Your task to perform on an android device: open app "Google Play Music" Image 0: 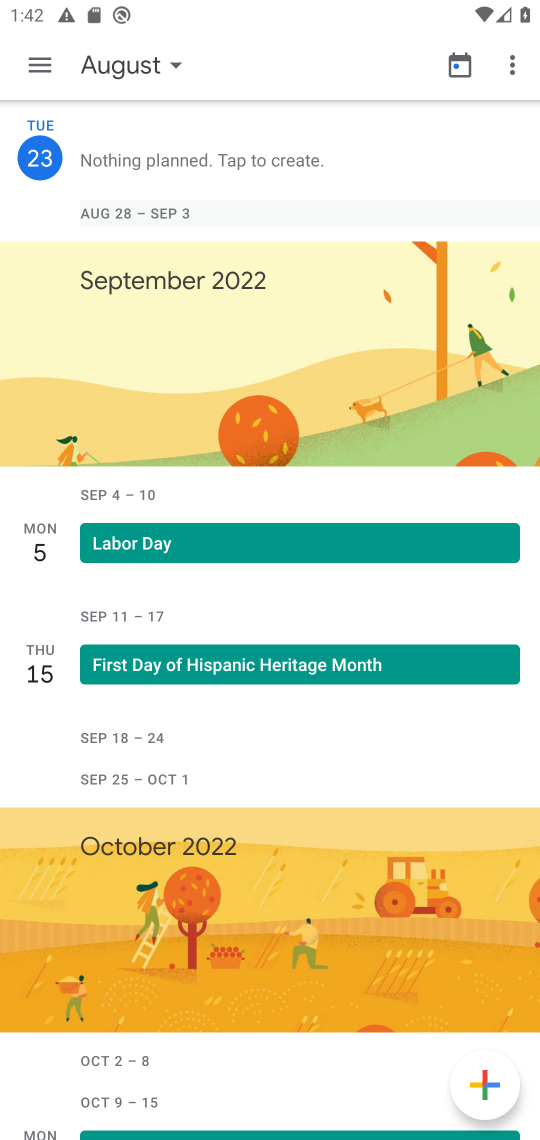
Step 0: press home button
Your task to perform on an android device: open app "Google Play Music" Image 1: 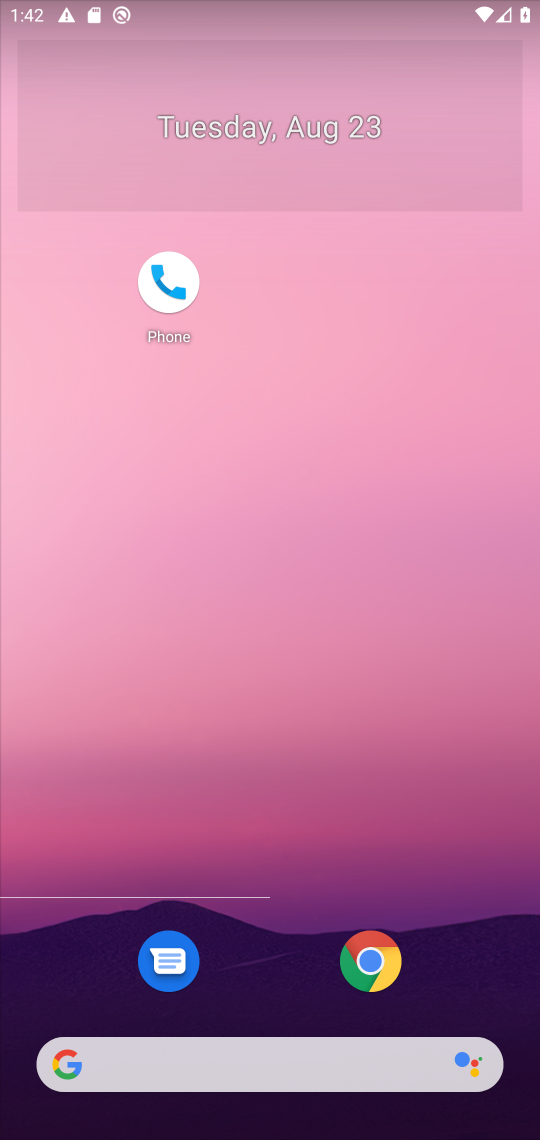
Step 1: drag from (267, 1012) to (262, 146)
Your task to perform on an android device: open app "Google Play Music" Image 2: 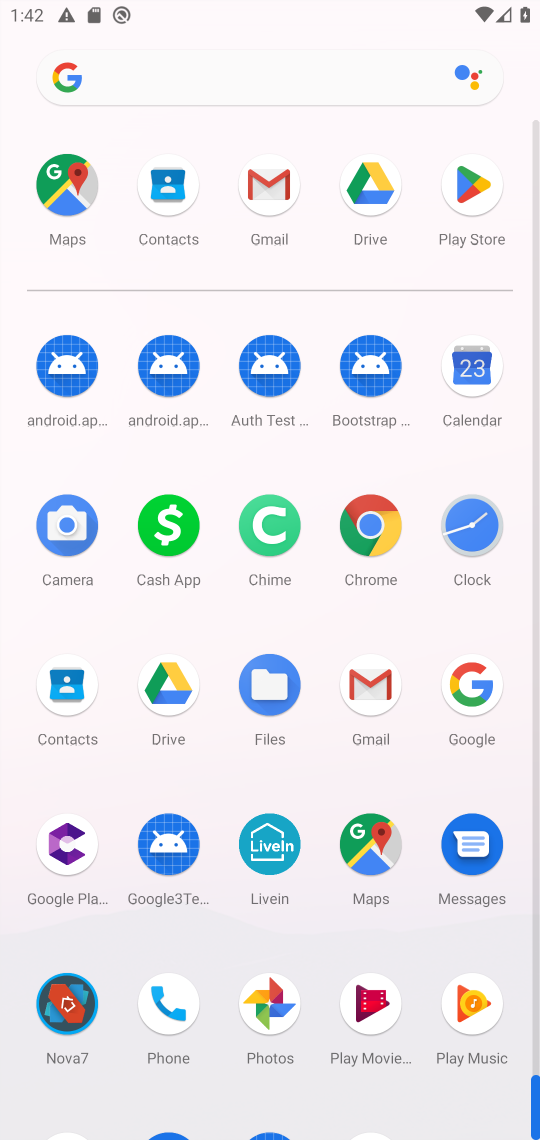
Step 2: click (472, 232)
Your task to perform on an android device: open app "Google Play Music" Image 3: 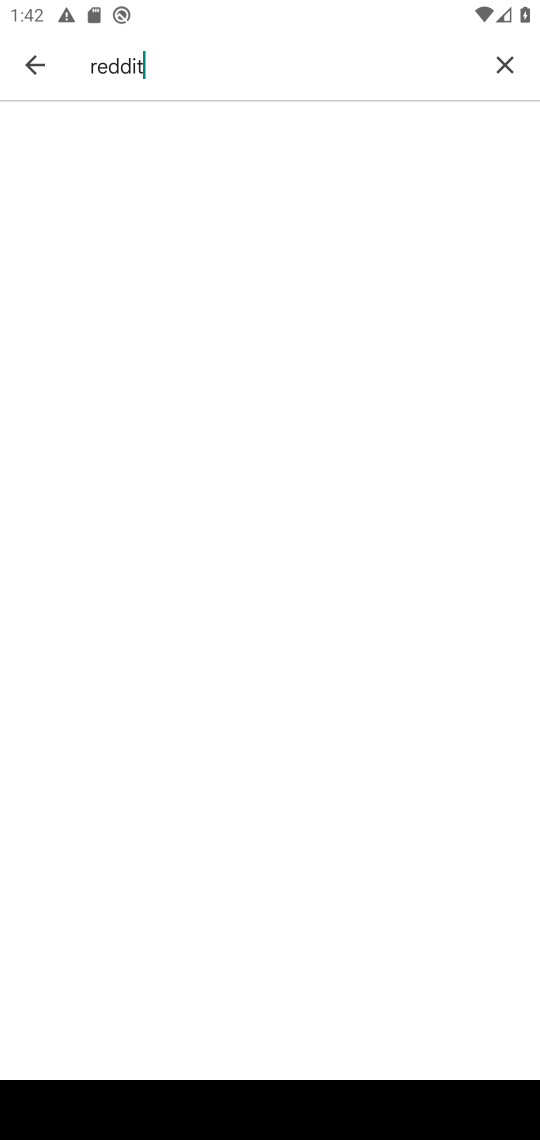
Step 3: click (491, 77)
Your task to perform on an android device: open app "Google Play Music" Image 4: 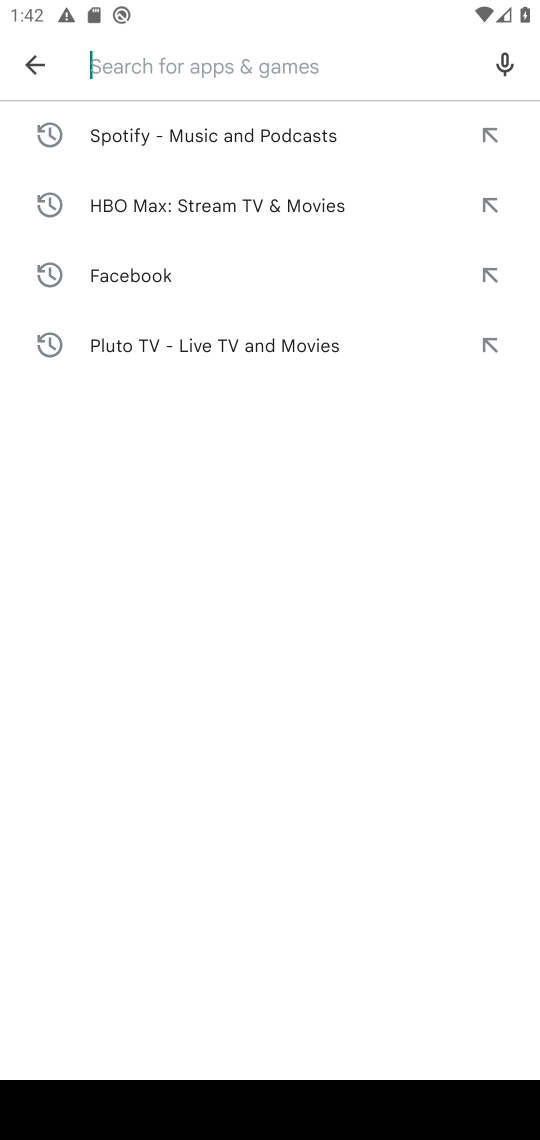
Step 4: type "google paly"
Your task to perform on an android device: open app "Google Play Music" Image 5: 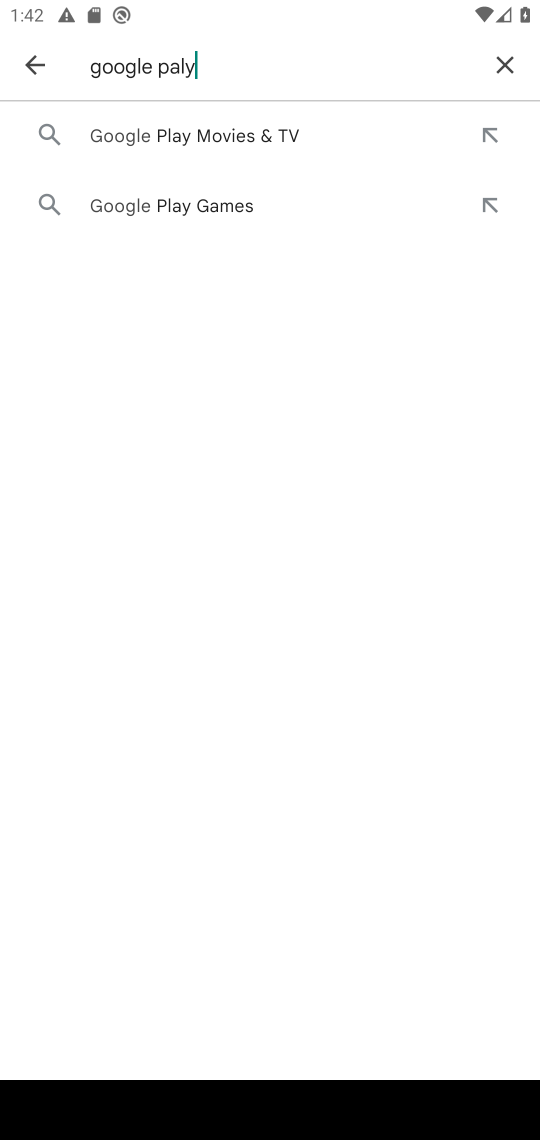
Step 5: task complete